Your task to perform on an android device: Go to Google Image 0: 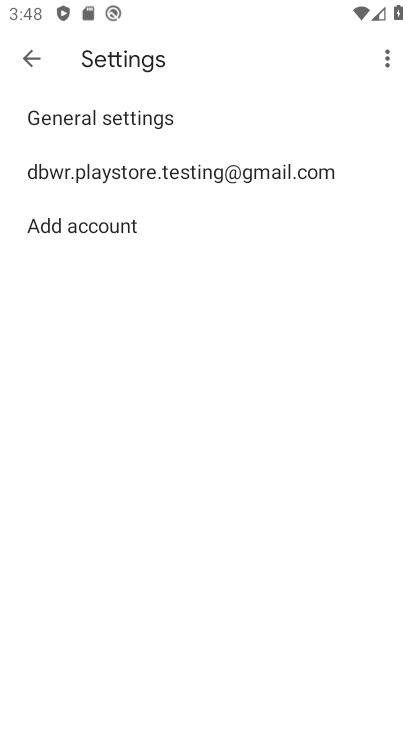
Step 0: press home button
Your task to perform on an android device: Go to Google Image 1: 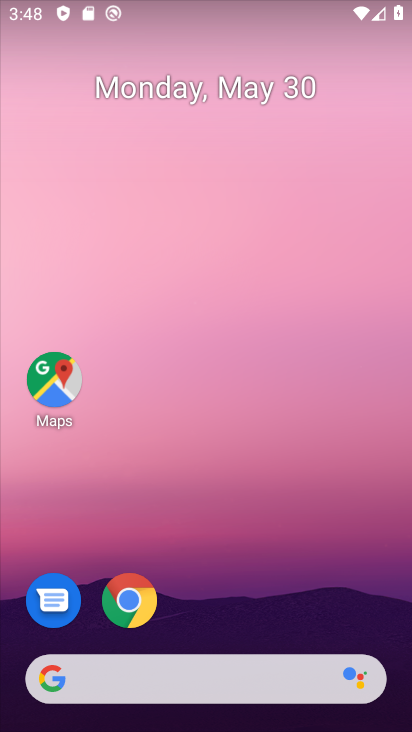
Step 1: drag from (266, 621) to (249, 124)
Your task to perform on an android device: Go to Google Image 2: 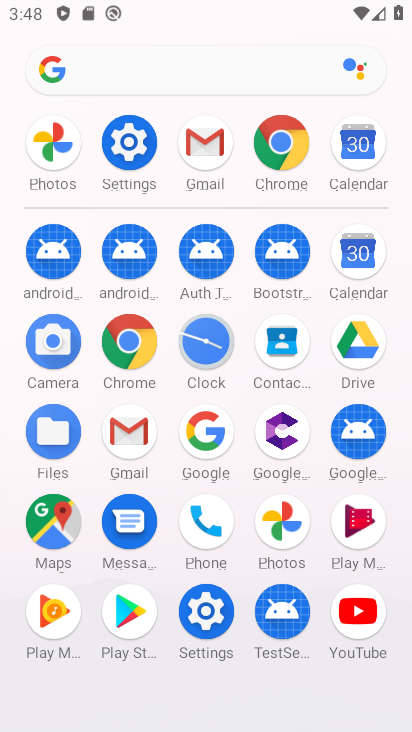
Step 2: click (197, 428)
Your task to perform on an android device: Go to Google Image 3: 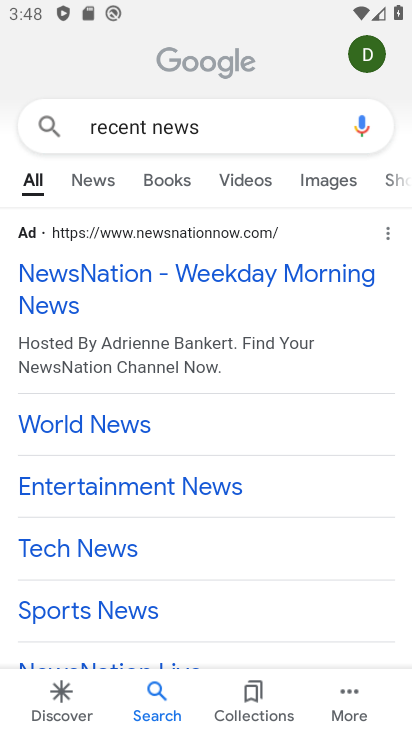
Step 3: task complete